Your task to perform on an android device: Find coffee shops on Maps Image 0: 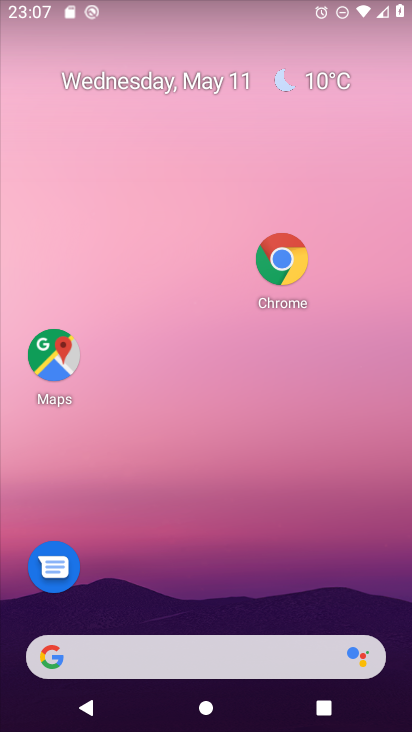
Step 0: click (62, 362)
Your task to perform on an android device: Find coffee shops on Maps Image 1: 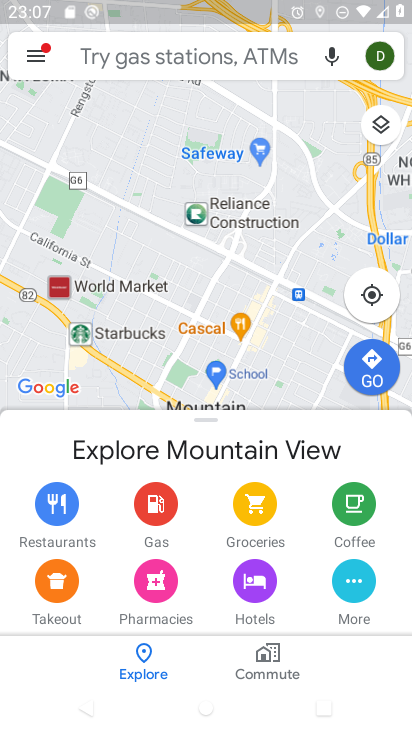
Step 1: click (209, 51)
Your task to perform on an android device: Find coffee shops on Maps Image 2: 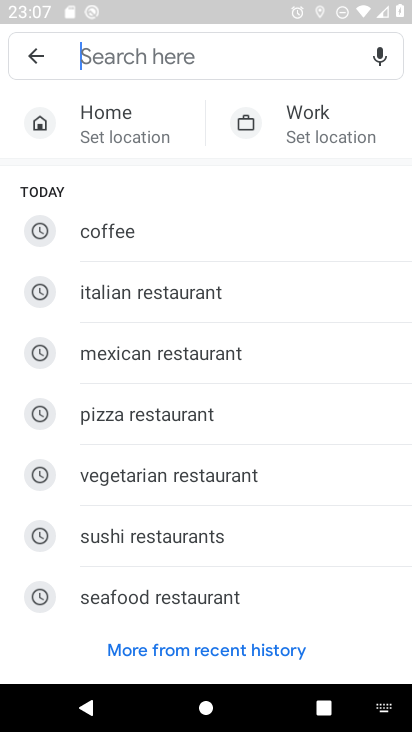
Step 2: click (91, 237)
Your task to perform on an android device: Find coffee shops on Maps Image 3: 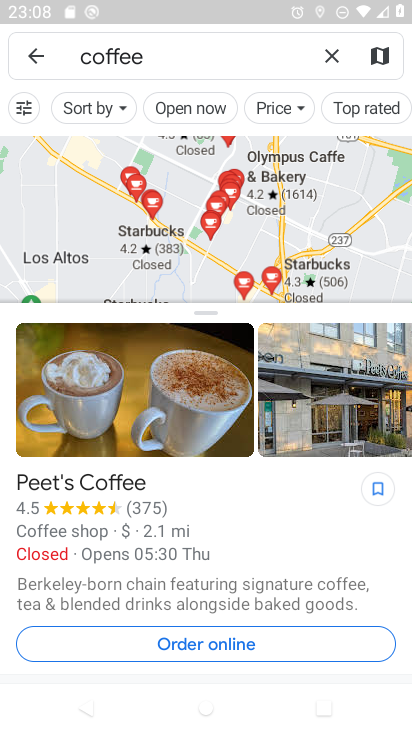
Step 3: task complete